Your task to perform on an android device: Open maps Image 0: 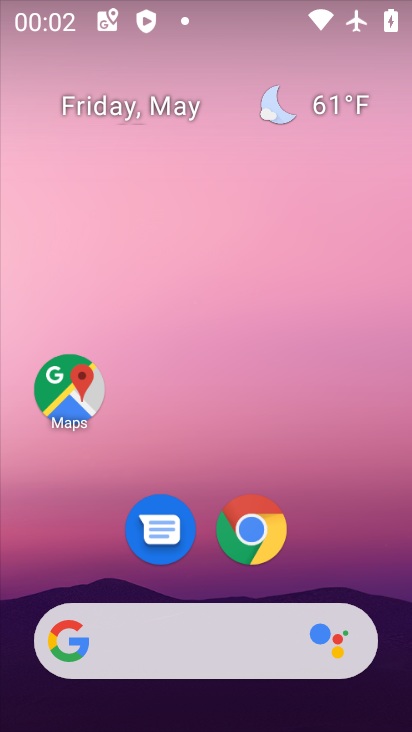
Step 0: click (78, 411)
Your task to perform on an android device: Open maps Image 1: 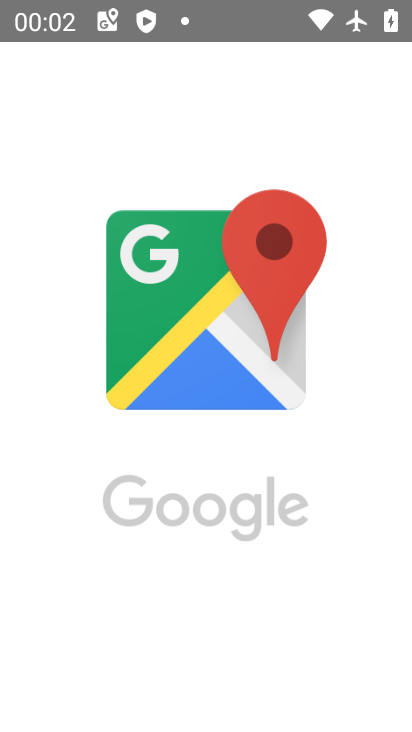
Step 1: task complete